Your task to perform on an android device: all mails in gmail Image 0: 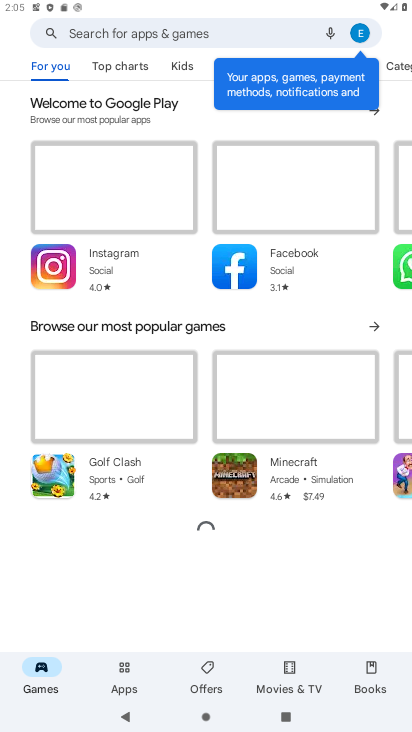
Step 0: press home button
Your task to perform on an android device: all mails in gmail Image 1: 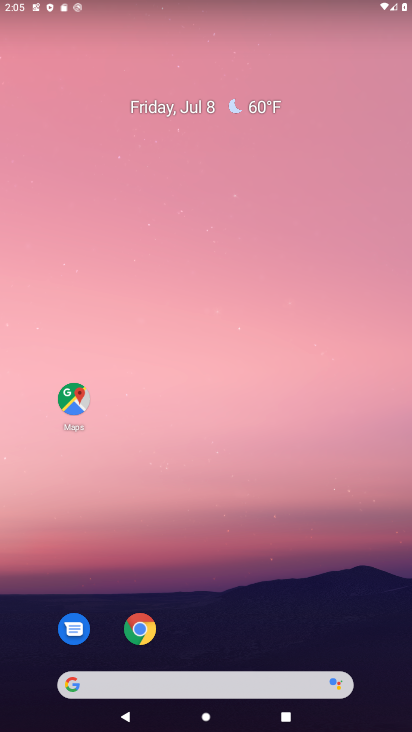
Step 1: drag from (221, 574) to (196, 193)
Your task to perform on an android device: all mails in gmail Image 2: 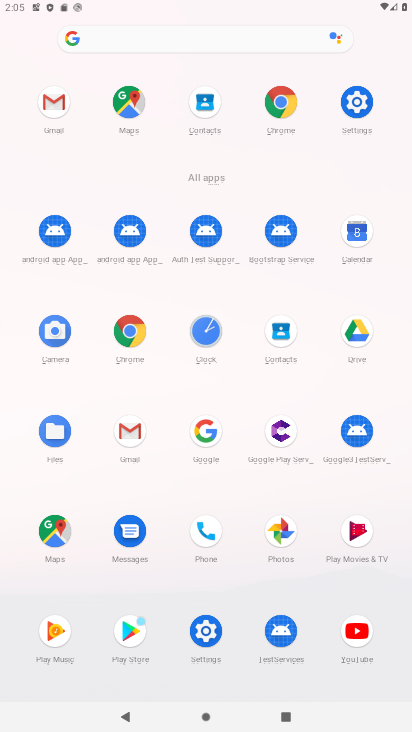
Step 2: click (129, 430)
Your task to perform on an android device: all mails in gmail Image 3: 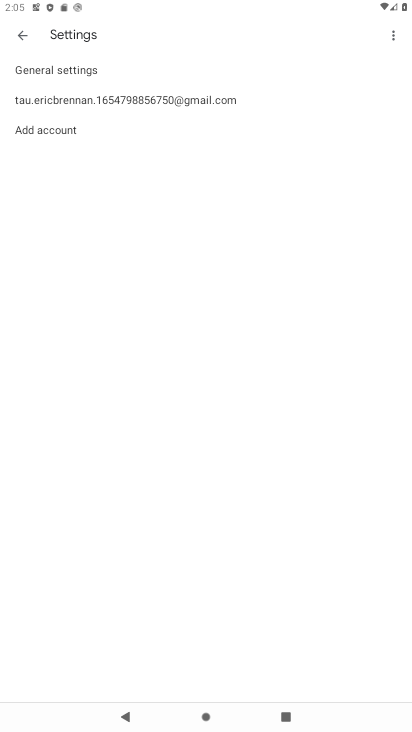
Step 3: click (19, 35)
Your task to perform on an android device: all mails in gmail Image 4: 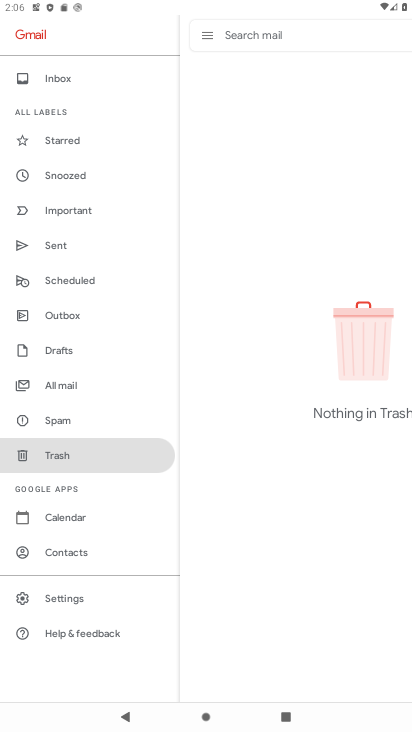
Step 4: click (72, 392)
Your task to perform on an android device: all mails in gmail Image 5: 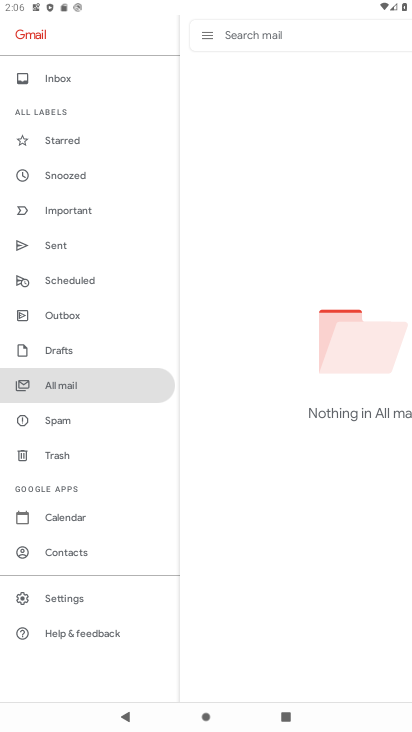
Step 5: task complete